Your task to perform on an android device: Go to ESPN.com Image 0: 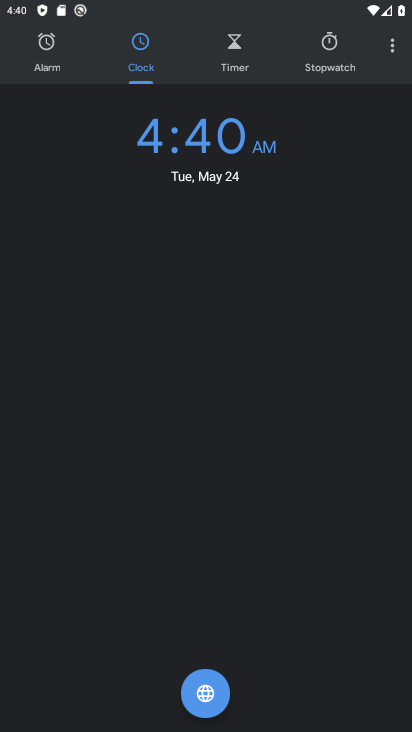
Step 0: press home button
Your task to perform on an android device: Go to ESPN.com Image 1: 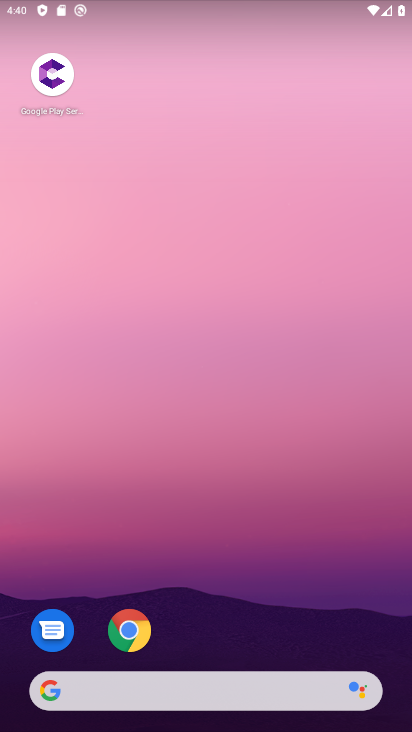
Step 1: click (135, 634)
Your task to perform on an android device: Go to ESPN.com Image 2: 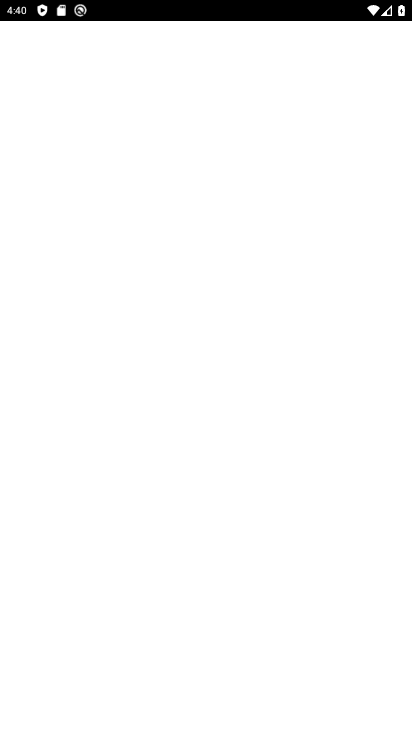
Step 2: click (129, 634)
Your task to perform on an android device: Go to ESPN.com Image 3: 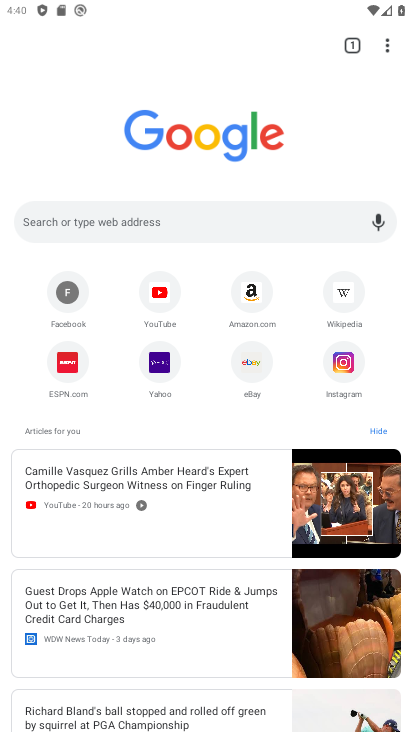
Step 3: click (62, 378)
Your task to perform on an android device: Go to ESPN.com Image 4: 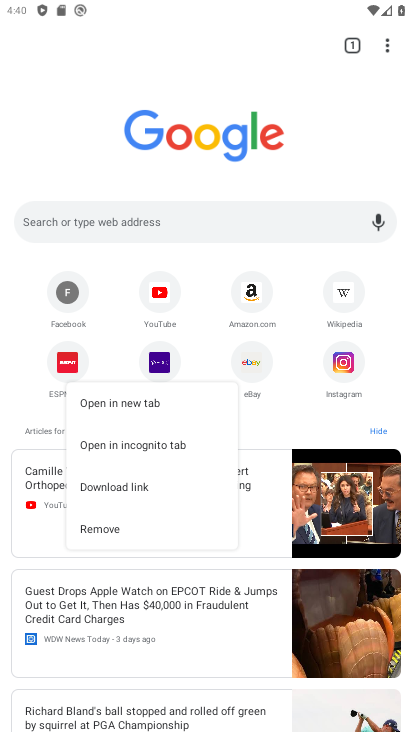
Step 4: click (72, 359)
Your task to perform on an android device: Go to ESPN.com Image 5: 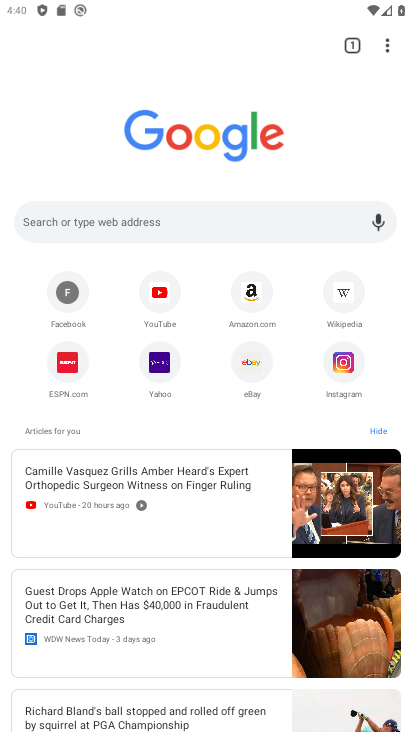
Step 5: click (73, 371)
Your task to perform on an android device: Go to ESPN.com Image 6: 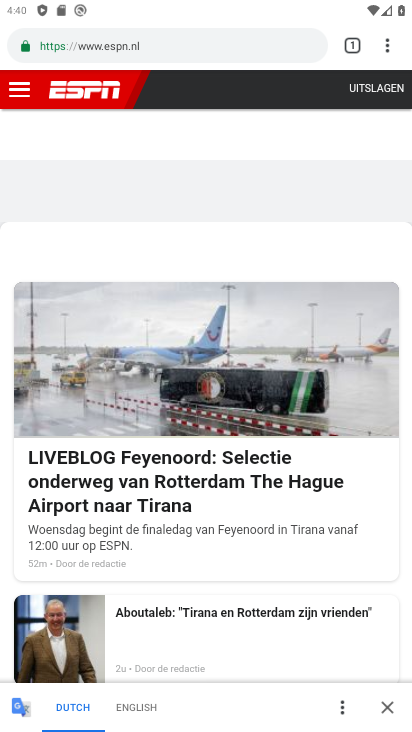
Step 6: task complete